Your task to perform on an android device: Go to notification settings Image 0: 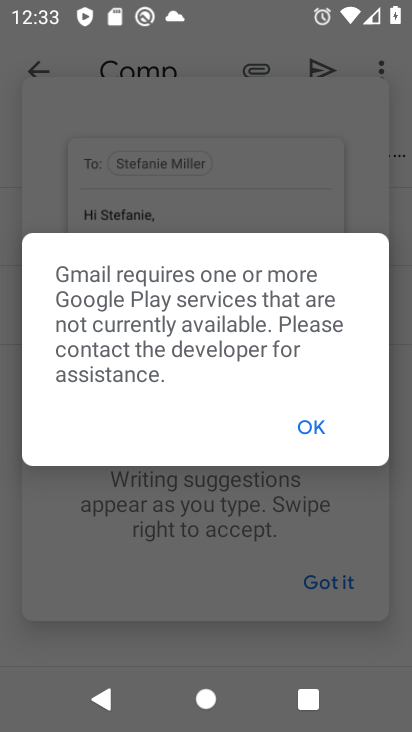
Step 0: press home button
Your task to perform on an android device: Go to notification settings Image 1: 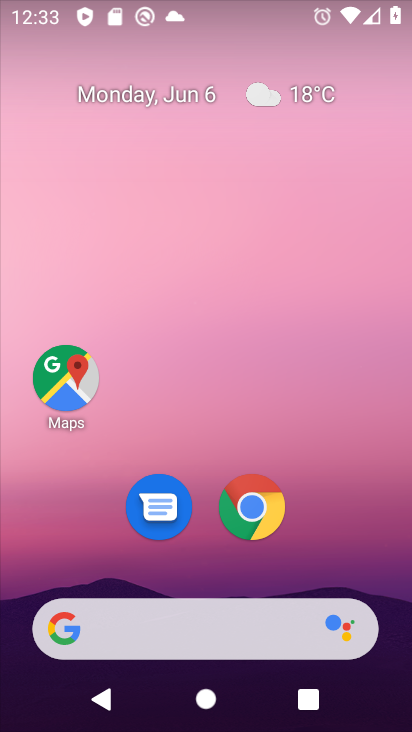
Step 1: drag from (263, 558) to (323, 223)
Your task to perform on an android device: Go to notification settings Image 2: 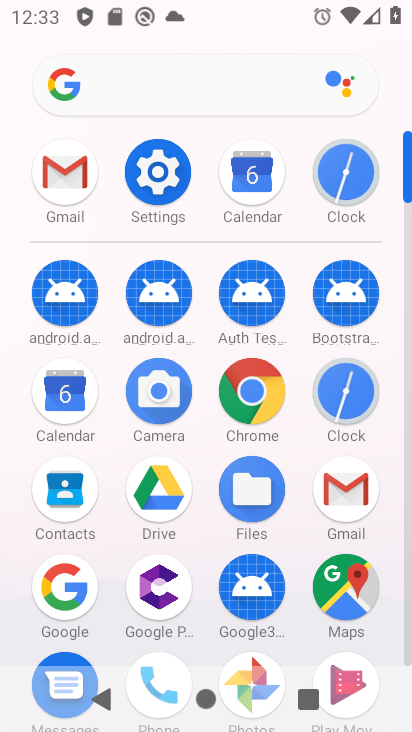
Step 2: click (153, 202)
Your task to perform on an android device: Go to notification settings Image 3: 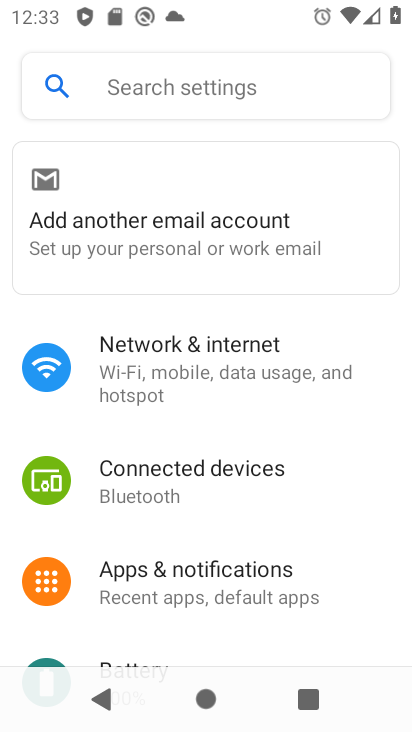
Step 3: click (206, 572)
Your task to perform on an android device: Go to notification settings Image 4: 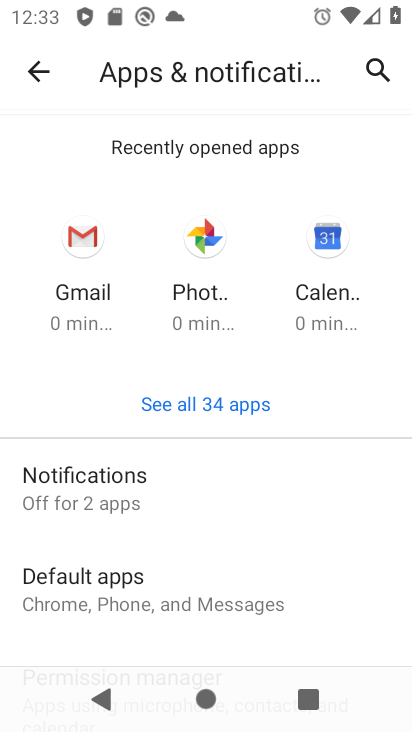
Step 4: drag from (206, 512) to (210, 420)
Your task to perform on an android device: Go to notification settings Image 5: 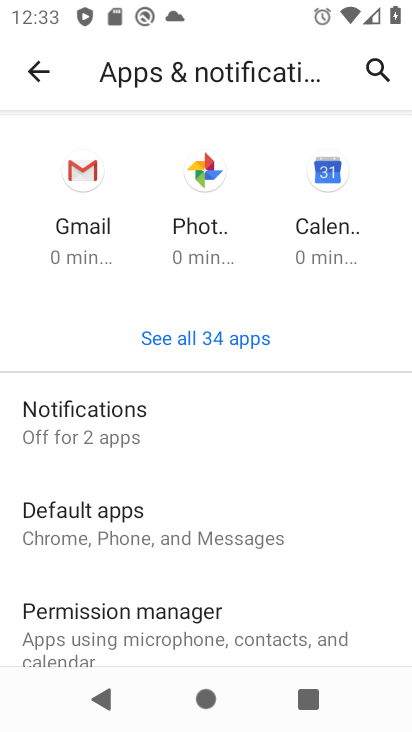
Step 5: click (134, 425)
Your task to perform on an android device: Go to notification settings Image 6: 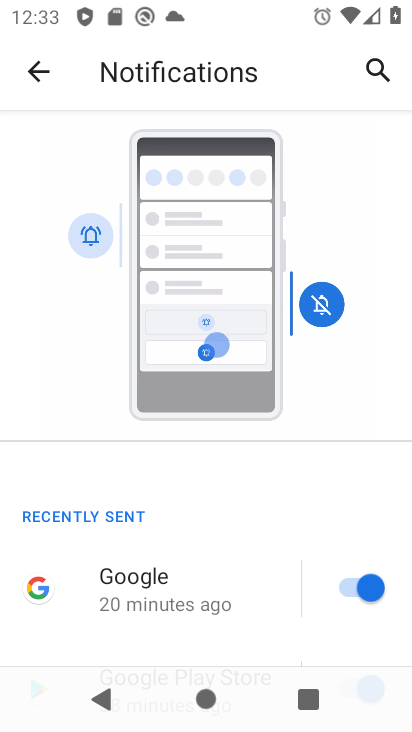
Step 6: task complete